Your task to perform on an android device: Open location settings Image 0: 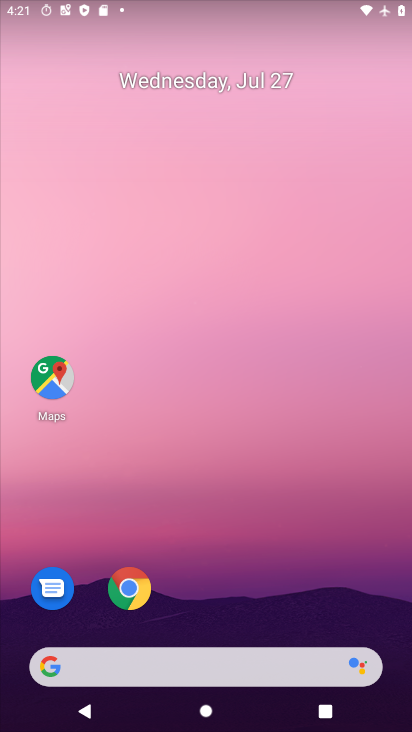
Step 0: drag from (269, 593) to (213, 176)
Your task to perform on an android device: Open location settings Image 1: 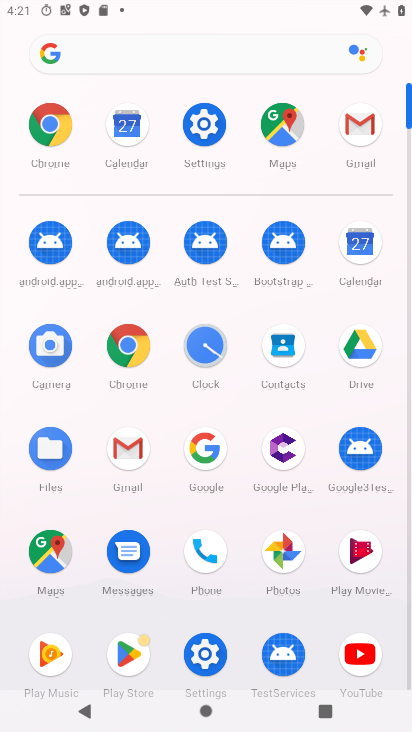
Step 1: click (201, 132)
Your task to perform on an android device: Open location settings Image 2: 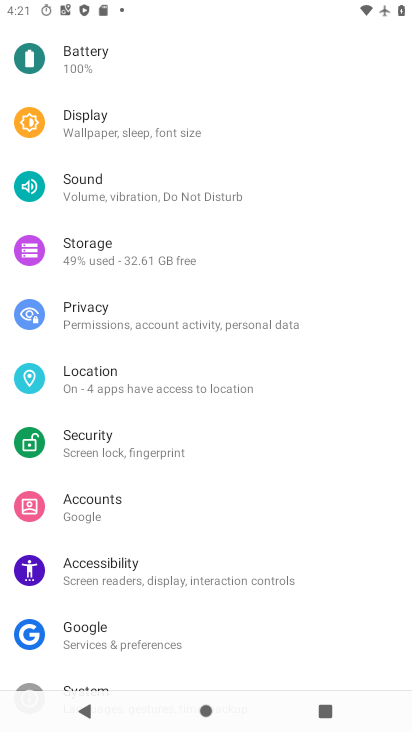
Step 2: click (135, 372)
Your task to perform on an android device: Open location settings Image 3: 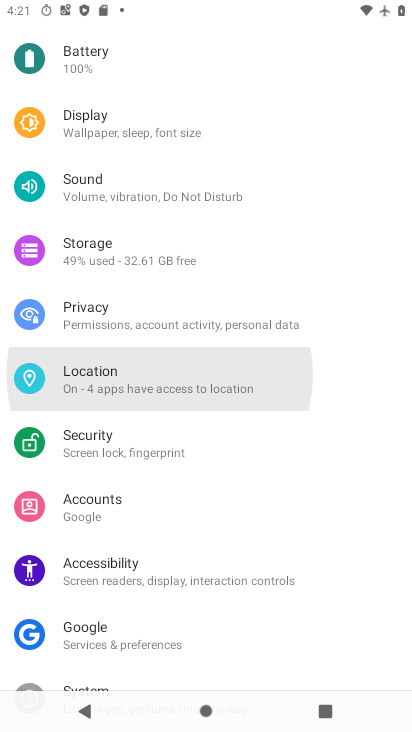
Step 3: click (135, 372)
Your task to perform on an android device: Open location settings Image 4: 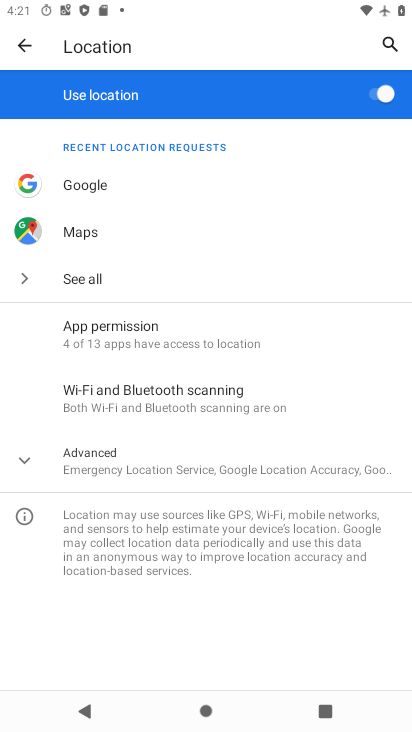
Step 4: task complete